Your task to perform on an android device: toggle sleep mode Image 0: 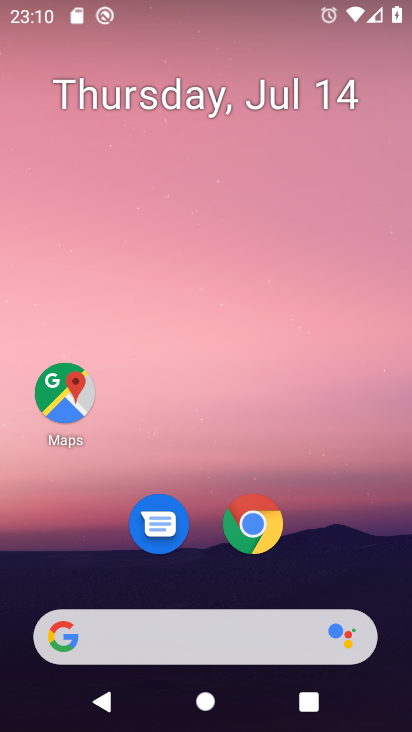
Step 0: drag from (221, 459) to (263, 3)
Your task to perform on an android device: toggle sleep mode Image 1: 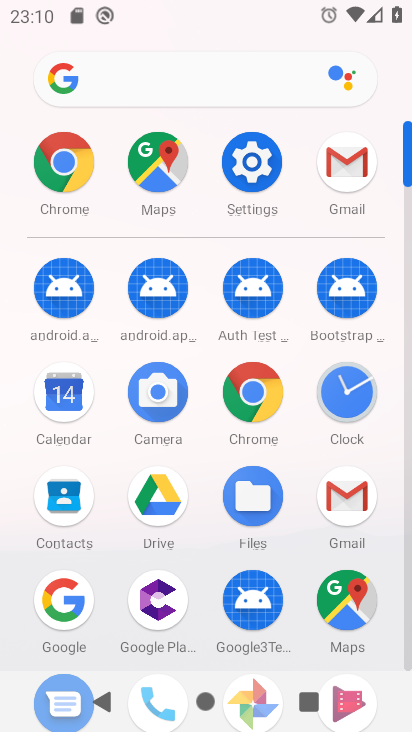
Step 1: click (250, 153)
Your task to perform on an android device: toggle sleep mode Image 2: 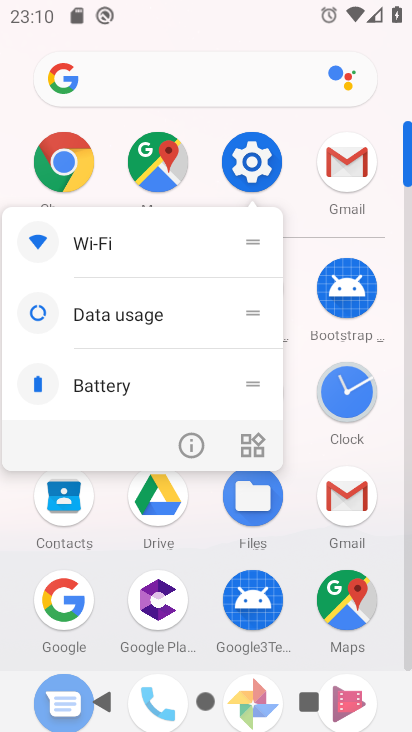
Step 2: click (248, 162)
Your task to perform on an android device: toggle sleep mode Image 3: 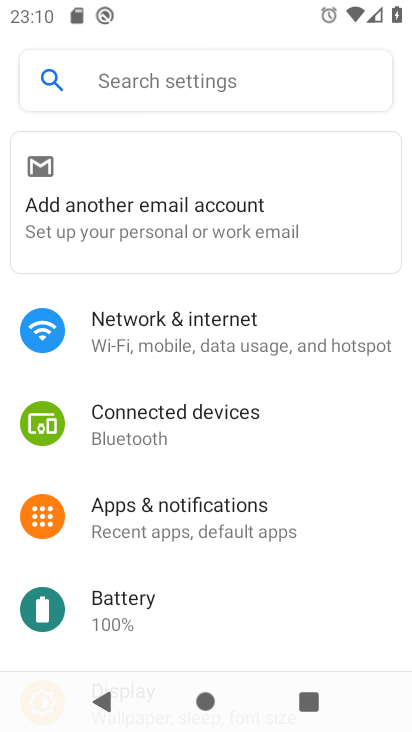
Step 3: drag from (214, 452) to (277, 54)
Your task to perform on an android device: toggle sleep mode Image 4: 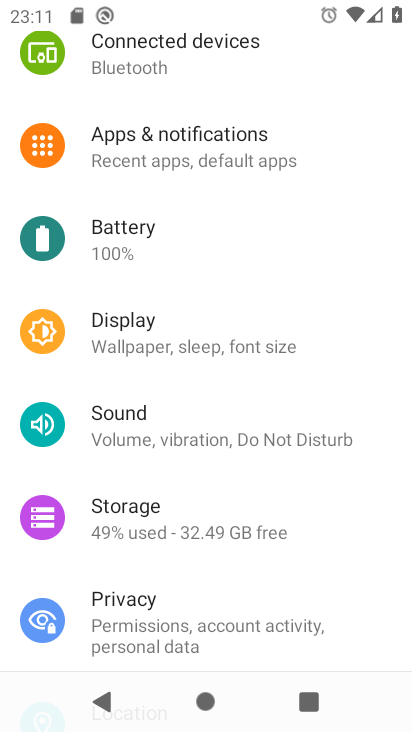
Step 4: click (179, 343)
Your task to perform on an android device: toggle sleep mode Image 5: 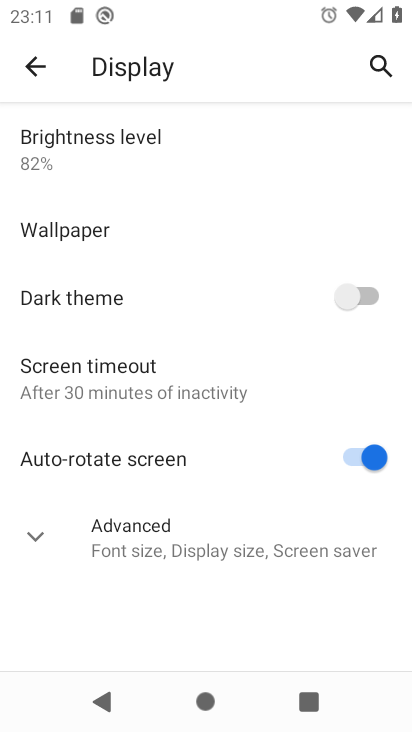
Step 5: click (32, 527)
Your task to perform on an android device: toggle sleep mode Image 6: 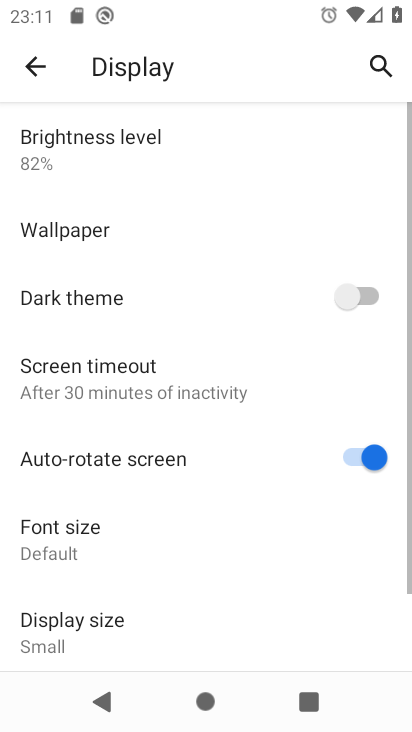
Step 6: task complete